Your task to perform on an android device: Go to Amazon Image 0: 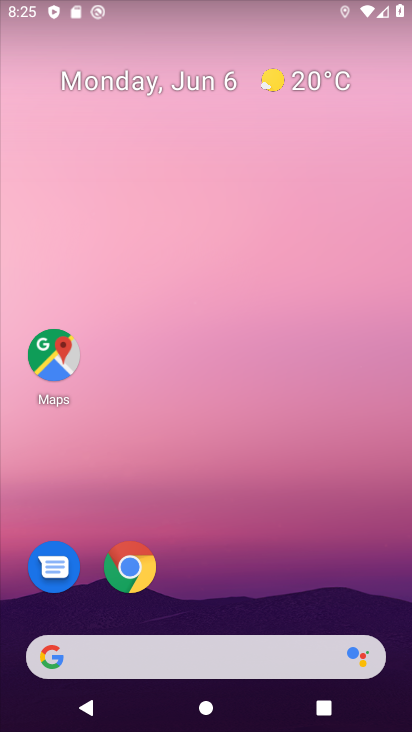
Step 0: click (131, 580)
Your task to perform on an android device: Go to Amazon Image 1: 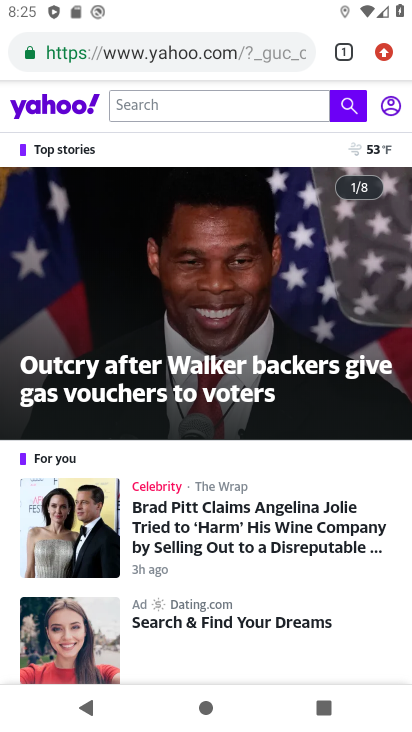
Step 1: click (381, 53)
Your task to perform on an android device: Go to Amazon Image 2: 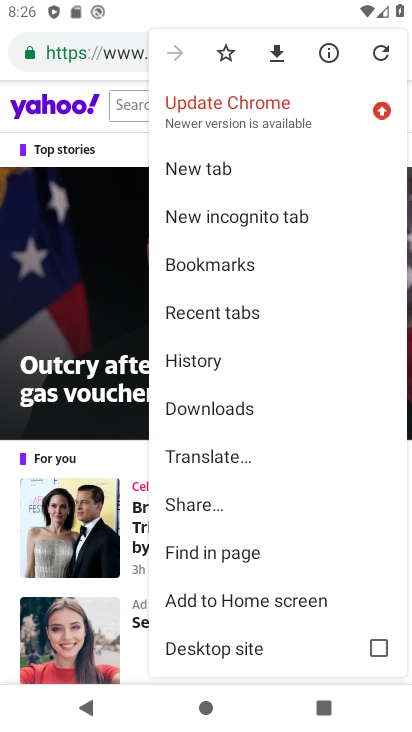
Step 2: click (187, 177)
Your task to perform on an android device: Go to Amazon Image 3: 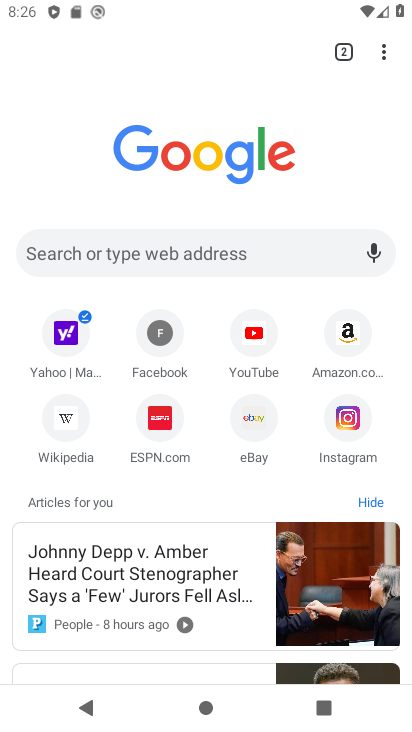
Step 3: click (353, 335)
Your task to perform on an android device: Go to Amazon Image 4: 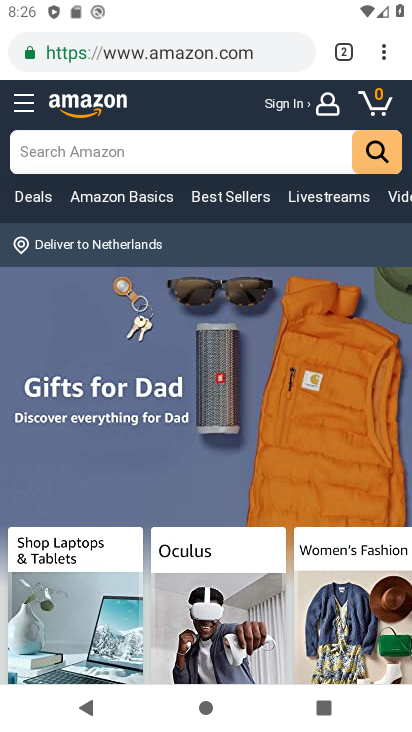
Step 4: task complete